Your task to perform on an android device: open a bookmark in the chrome app Image 0: 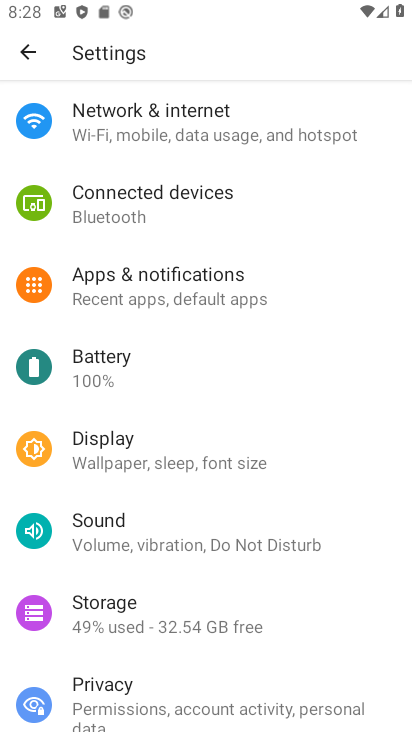
Step 0: press home button
Your task to perform on an android device: open a bookmark in the chrome app Image 1: 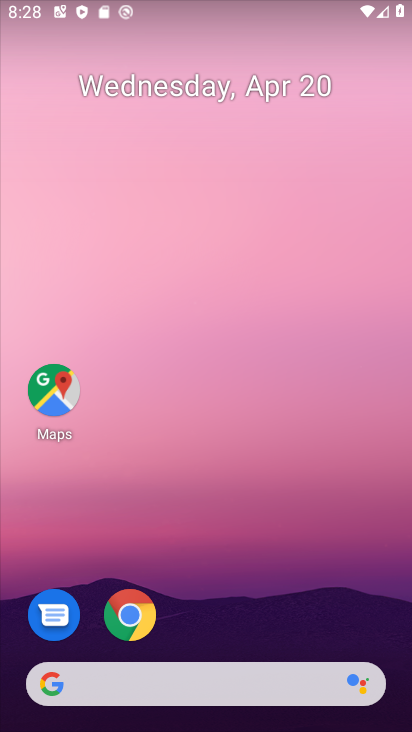
Step 1: click (128, 617)
Your task to perform on an android device: open a bookmark in the chrome app Image 2: 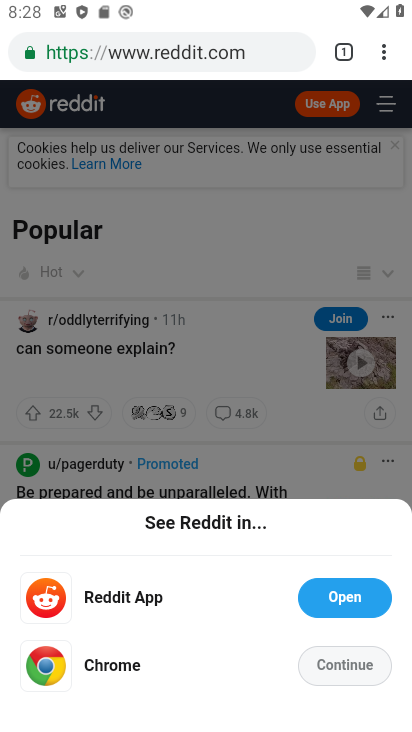
Step 2: click (384, 55)
Your task to perform on an android device: open a bookmark in the chrome app Image 3: 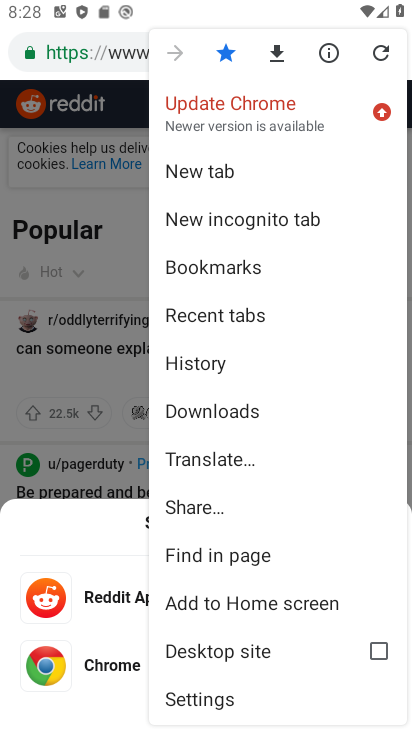
Step 3: click (252, 268)
Your task to perform on an android device: open a bookmark in the chrome app Image 4: 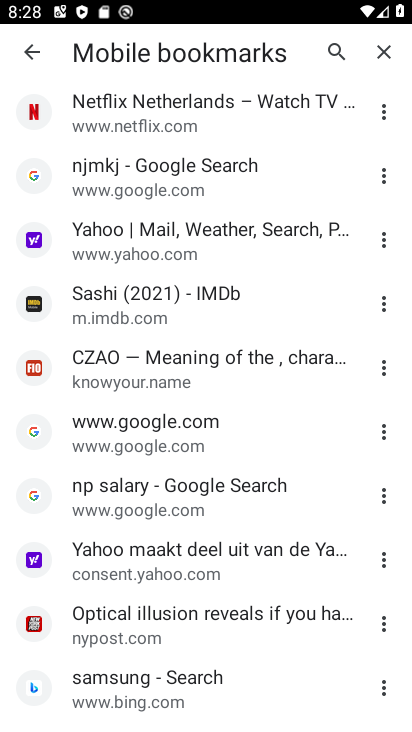
Step 4: task complete